Your task to perform on an android device: Open eBay Image 0: 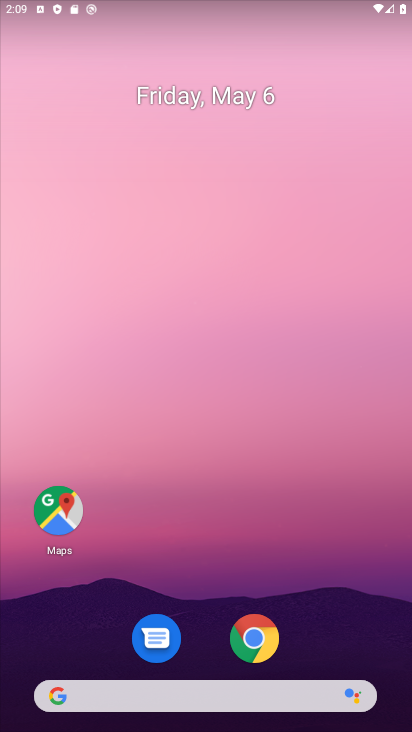
Step 0: click (184, 703)
Your task to perform on an android device: Open eBay Image 1: 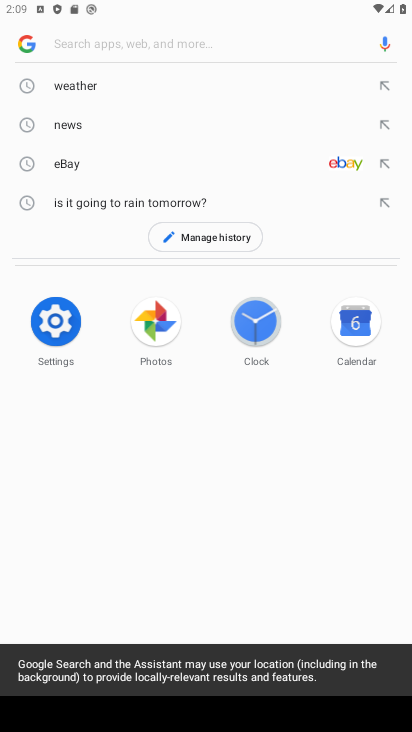
Step 1: click (117, 167)
Your task to perform on an android device: Open eBay Image 2: 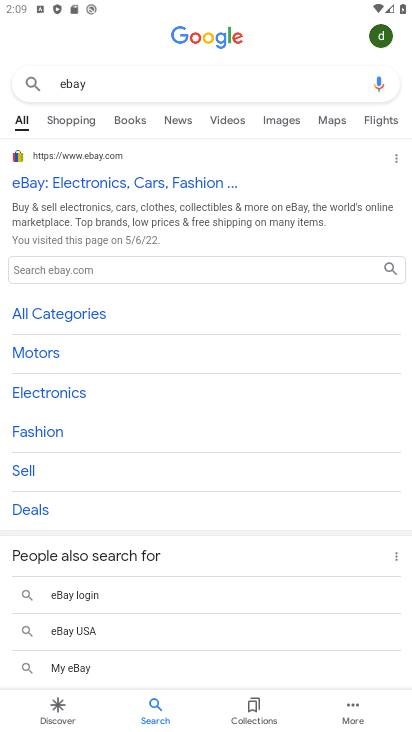
Step 2: click (39, 153)
Your task to perform on an android device: Open eBay Image 3: 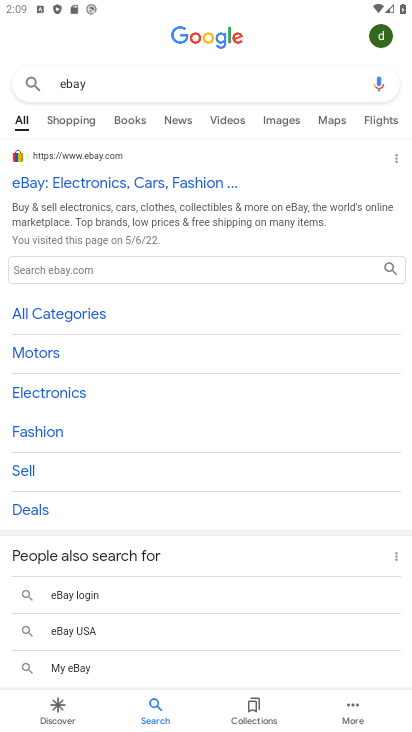
Step 3: click (107, 184)
Your task to perform on an android device: Open eBay Image 4: 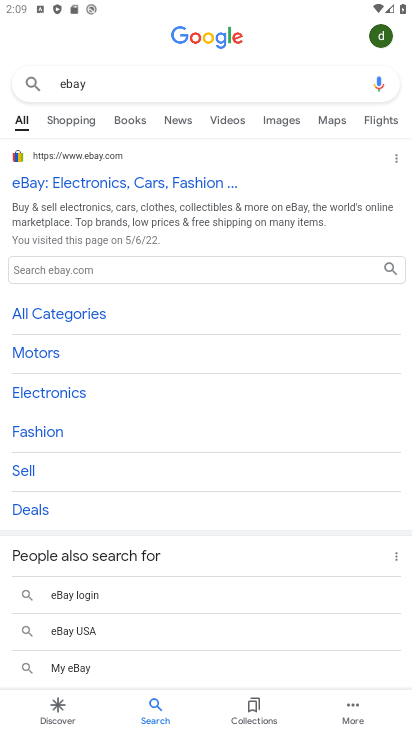
Step 4: click (122, 177)
Your task to perform on an android device: Open eBay Image 5: 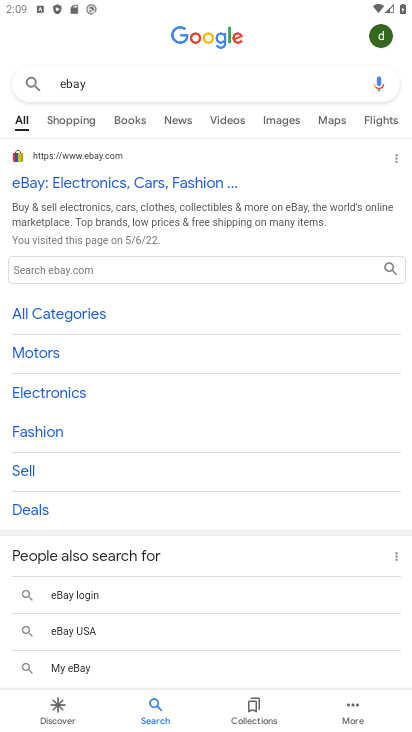
Step 5: click (87, 230)
Your task to perform on an android device: Open eBay Image 6: 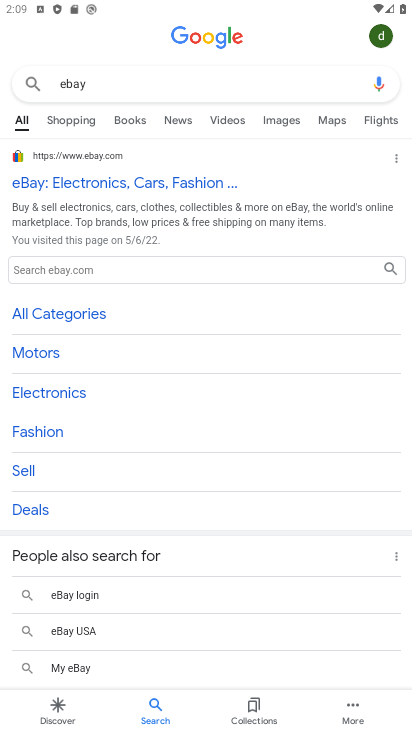
Step 6: click (65, 148)
Your task to perform on an android device: Open eBay Image 7: 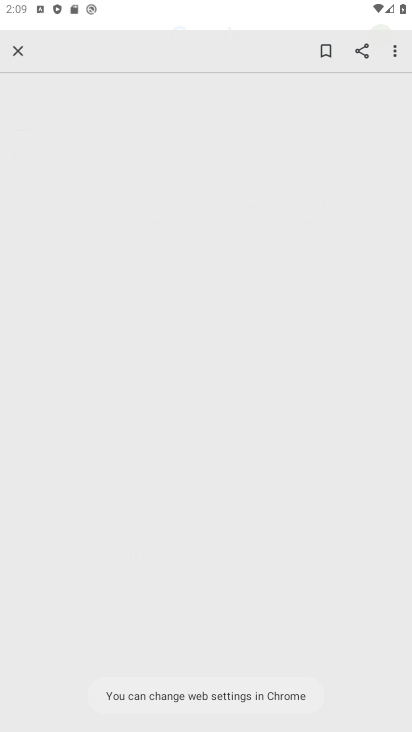
Step 7: click (66, 149)
Your task to perform on an android device: Open eBay Image 8: 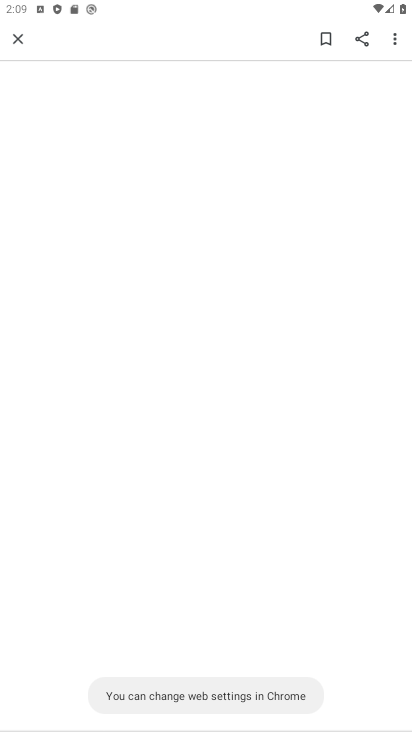
Step 8: click (68, 157)
Your task to perform on an android device: Open eBay Image 9: 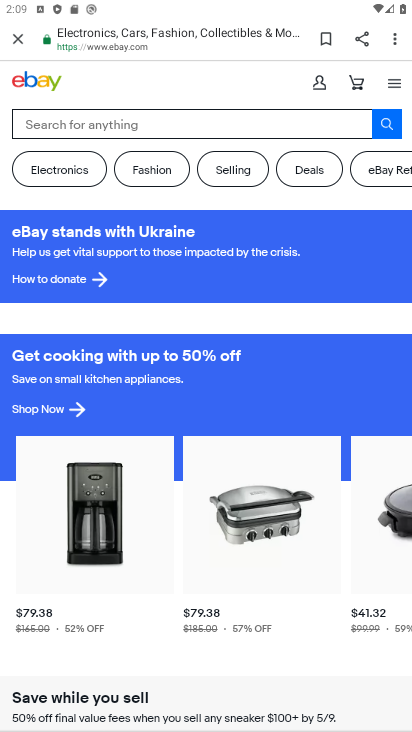
Step 9: task complete